Your task to perform on an android device: What's the weather going to be tomorrow? Image 0: 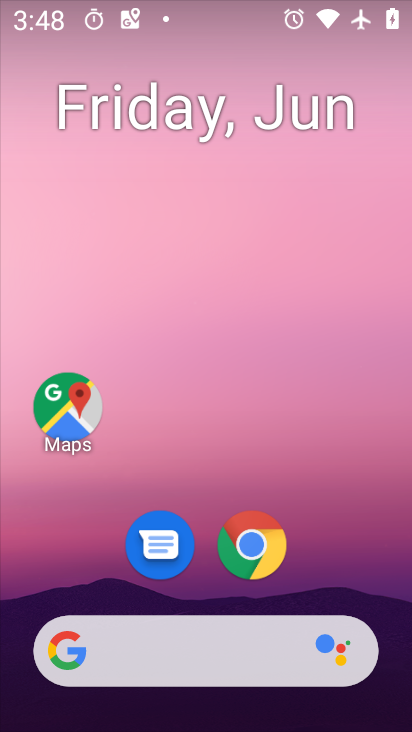
Step 0: click (136, 645)
Your task to perform on an android device: What's the weather going to be tomorrow? Image 1: 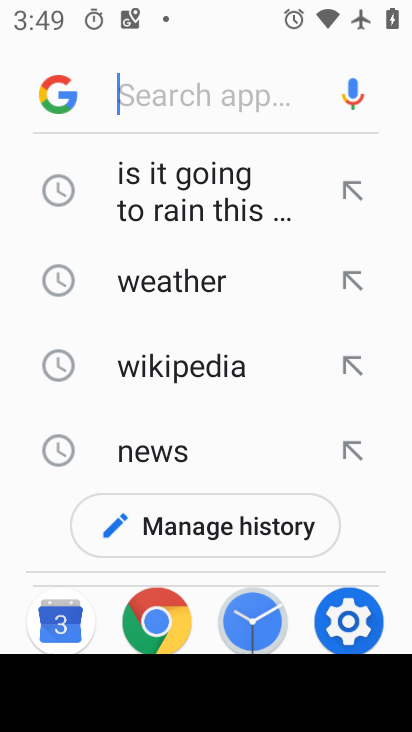
Step 1: type "what's the weather going to be tomorrow"
Your task to perform on an android device: What's the weather going to be tomorrow? Image 2: 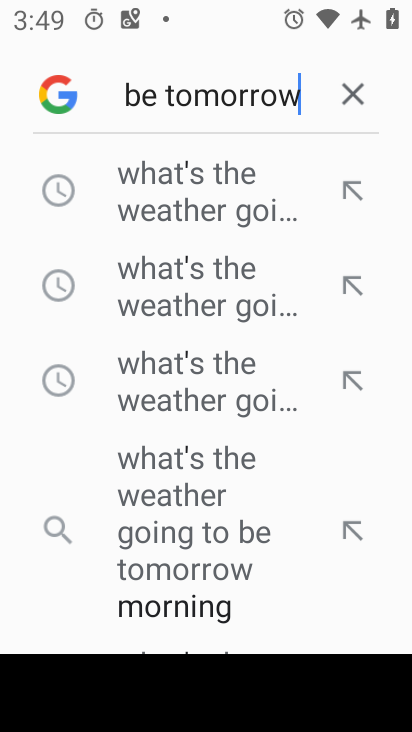
Step 2: click (241, 196)
Your task to perform on an android device: What's the weather going to be tomorrow? Image 3: 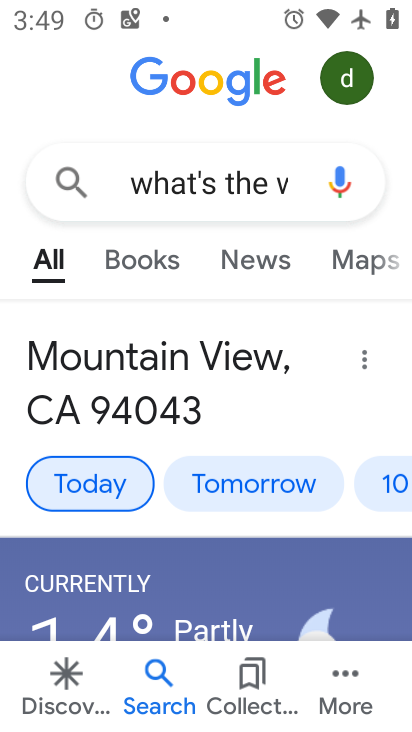
Step 3: drag from (179, 553) to (186, 143)
Your task to perform on an android device: What's the weather going to be tomorrow? Image 4: 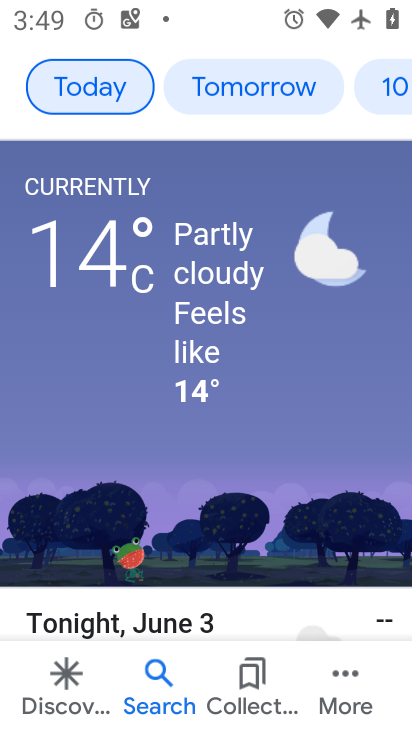
Step 4: click (242, 98)
Your task to perform on an android device: What's the weather going to be tomorrow? Image 5: 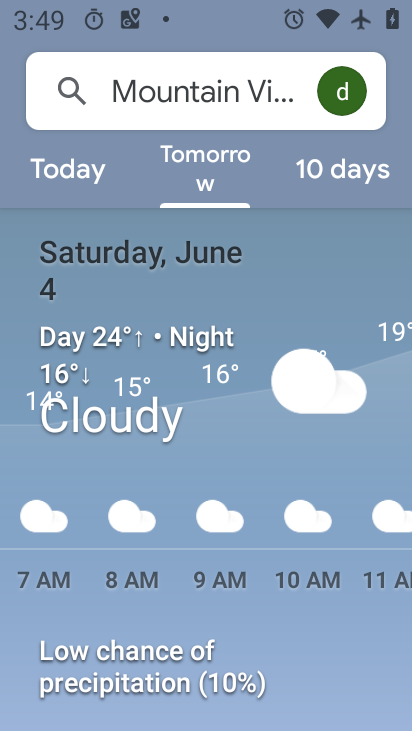
Step 5: task complete